Your task to perform on an android device: set an alarm Image 0: 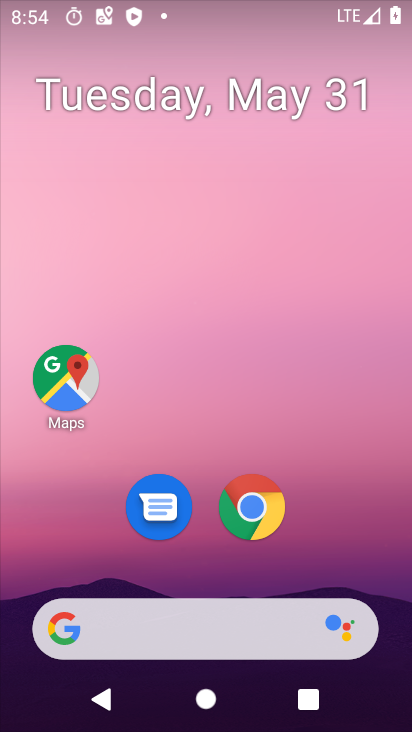
Step 0: drag from (11, 601) to (159, 227)
Your task to perform on an android device: set an alarm Image 1: 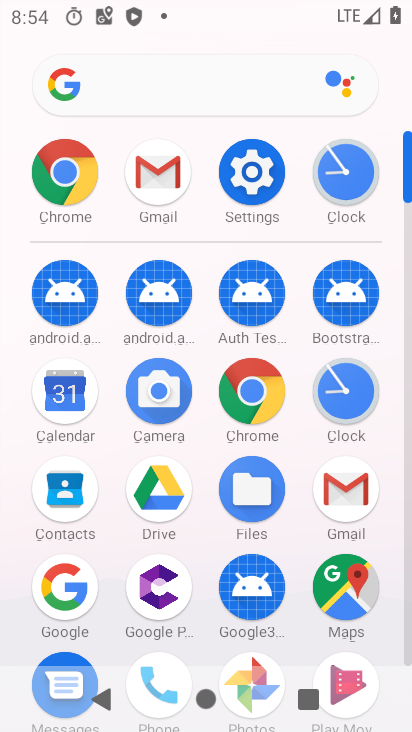
Step 1: click (348, 368)
Your task to perform on an android device: set an alarm Image 2: 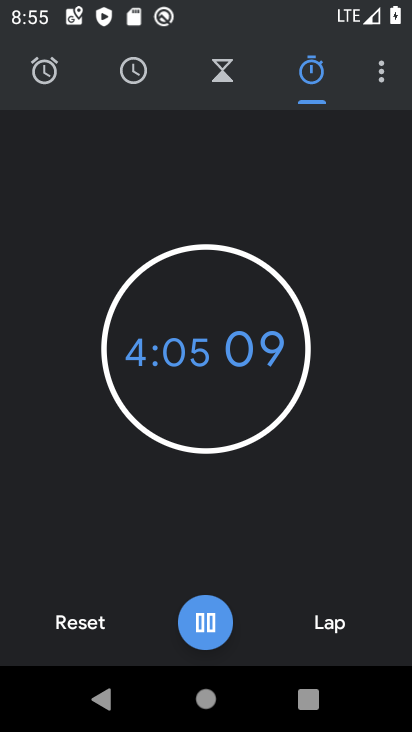
Step 2: click (44, 89)
Your task to perform on an android device: set an alarm Image 3: 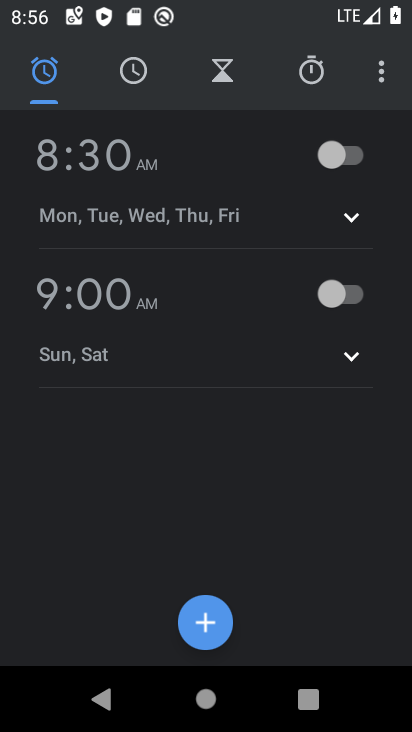
Step 3: click (201, 604)
Your task to perform on an android device: set an alarm Image 4: 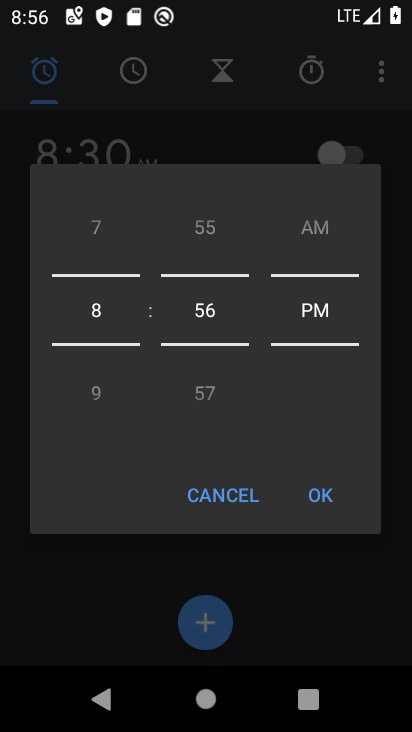
Step 4: click (313, 503)
Your task to perform on an android device: set an alarm Image 5: 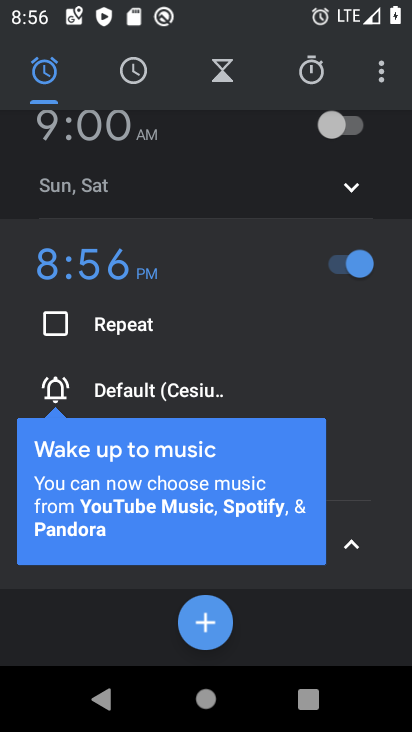
Step 5: task complete